Your task to perform on an android device: toggle location history Image 0: 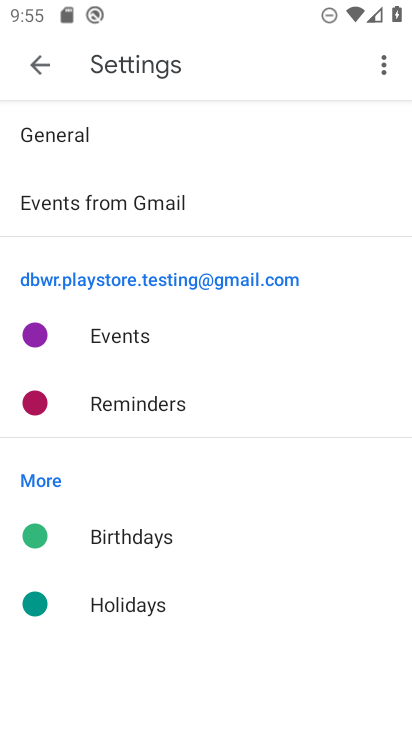
Step 0: press home button
Your task to perform on an android device: toggle location history Image 1: 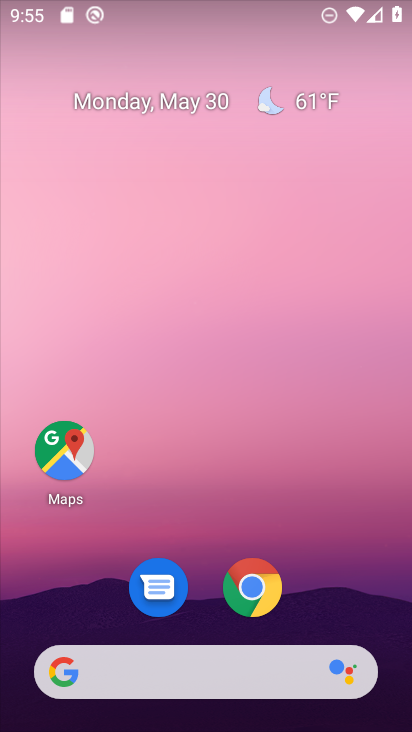
Step 1: drag from (204, 637) to (128, 54)
Your task to perform on an android device: toggle location history Image 2: 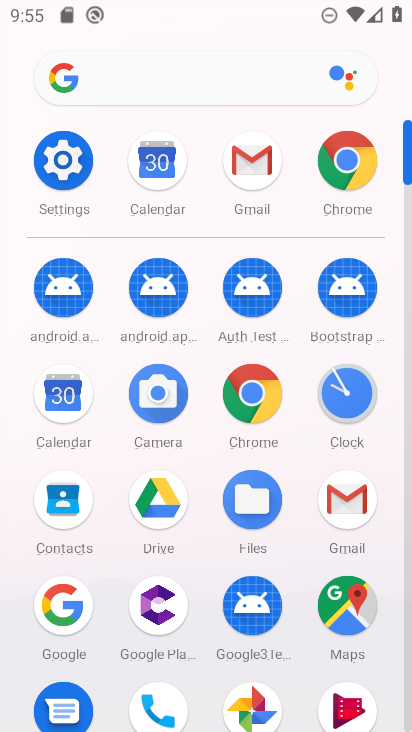
Step 2: click (331, 616)
Your task to perform on an android device: toggle location history Image 3: 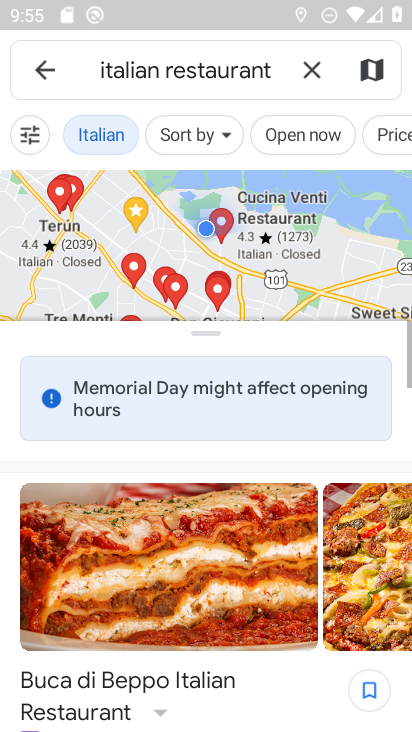
Step 3: press home button
Your task to perform on an android device: toggle location history Image 4: 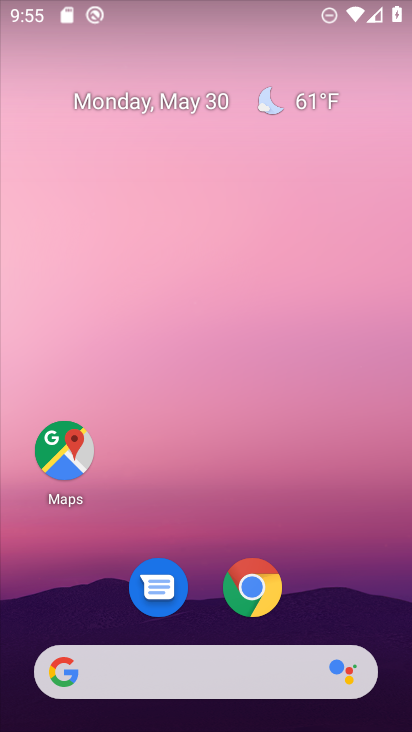
Step 4: drag from (202, 655) to (98, 49)
Your task to perform on an android device: toggle location history Image 5: 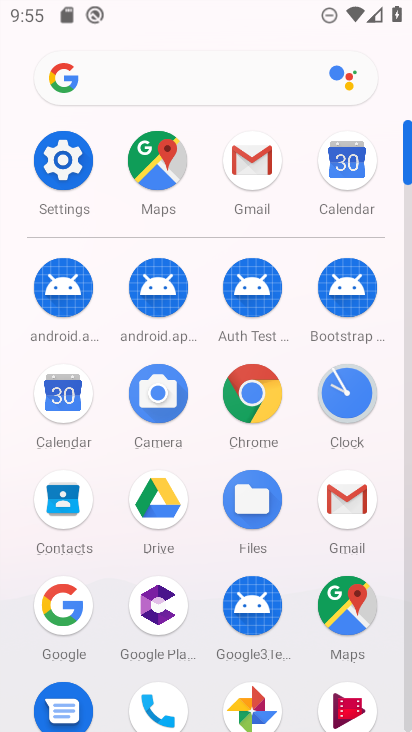
Step 5: click (67, 167)
Your task to perform on an android device: toggle location history Image 6: 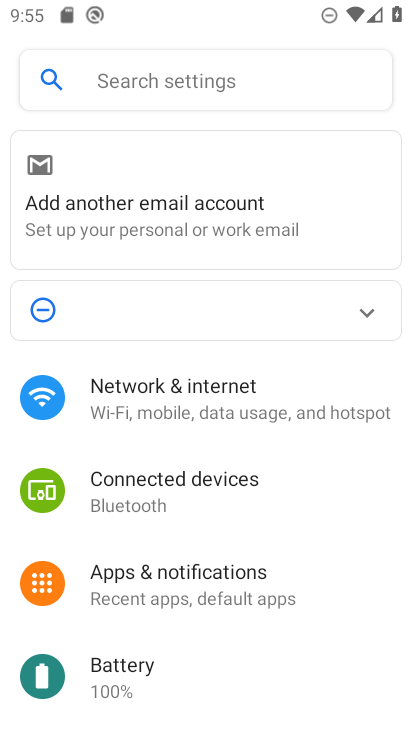
Step 6: drag from (299, 642) to (243, 215)
Your task to perform on an android device: toggle location history Image 7: 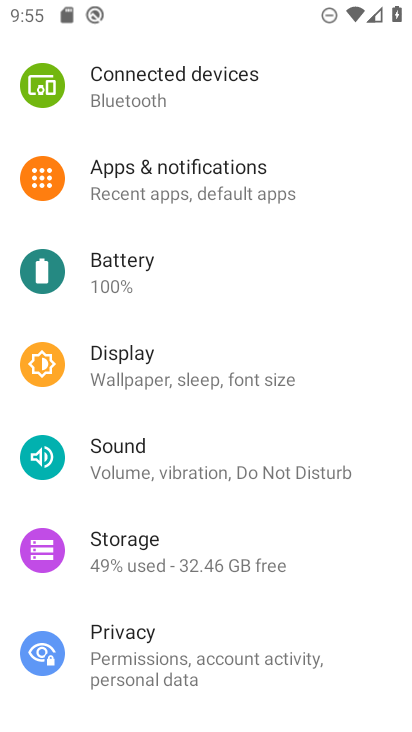
Step 7: drag from (182, 663) to (152, 303)
Your task to perform on an android device: toggle location history Image 8: 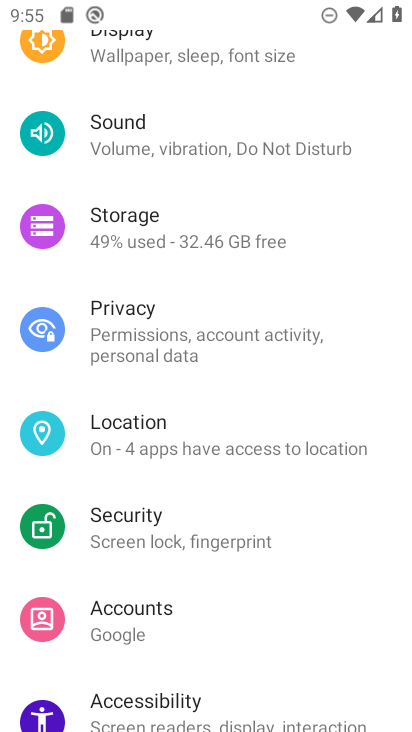
Step 8: click (137, 454)
Your task to perform on an android device: toggle location history Image 9: 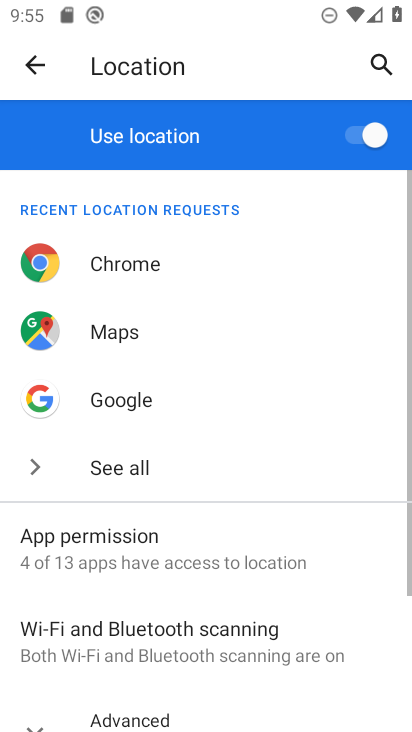
Step 9: click (164, 710)
Your task to perform on an android device: toggle location history Image 10: 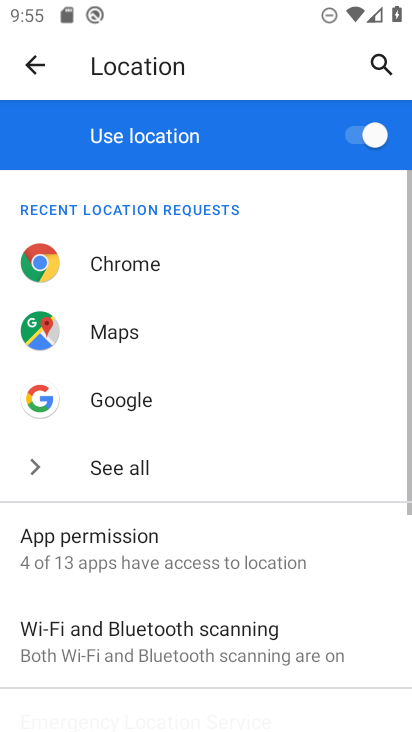
Step 10: drag from (164, 710) to (83, 234)
Your task to perform on an android device: toggle location history Image 11: 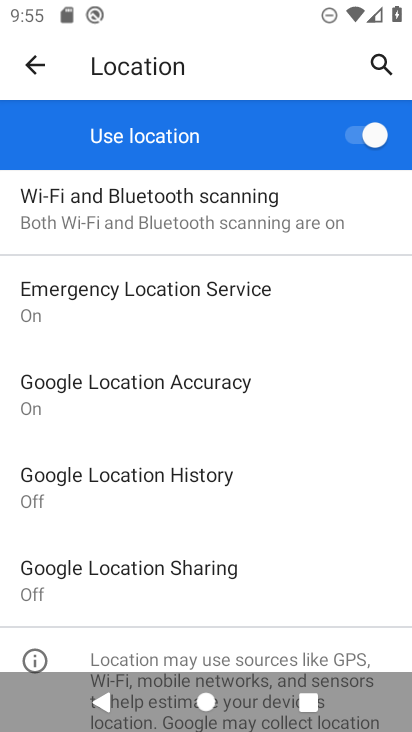
Step 11: click (134, 462)
Your task to perform on an android device: toggle location history Image 12: 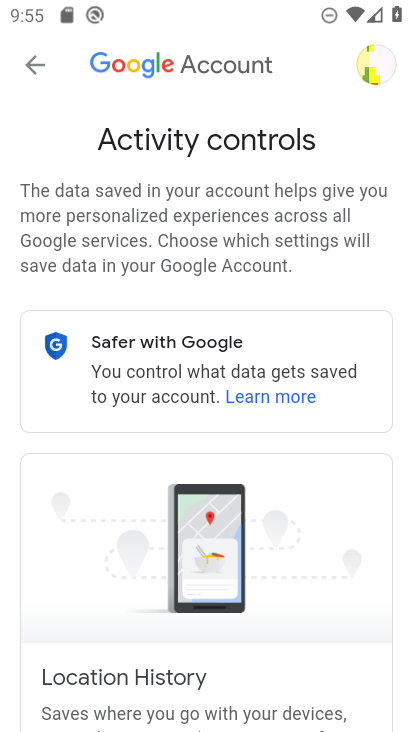
Step 12: drag from (262, 569) to (172, 137)
Your task to perform on an android device: toggle location history Image 13: 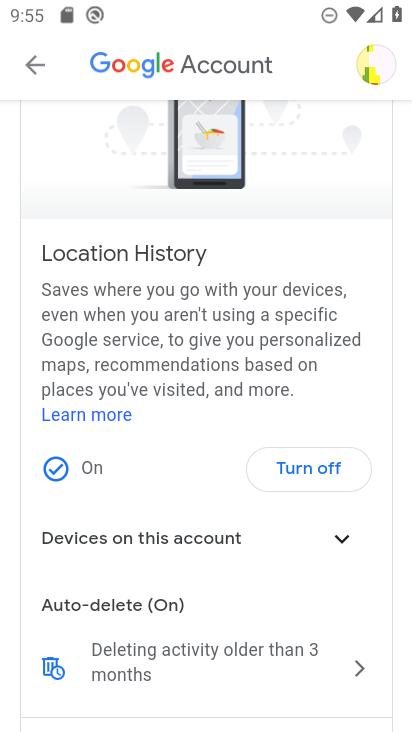
Step 13: click (296, 460)
Your task to perform on an android device: toggle location history Image 14: 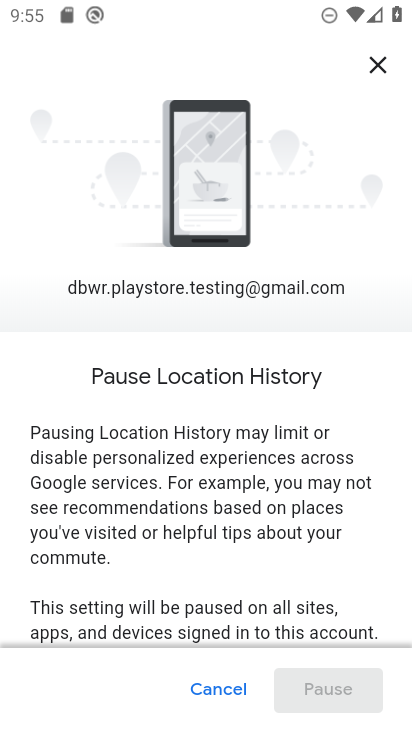
Step 14: drag from (285, 610) to (225, 94)
Your task to perform on an android device: toggle location history Image 15: 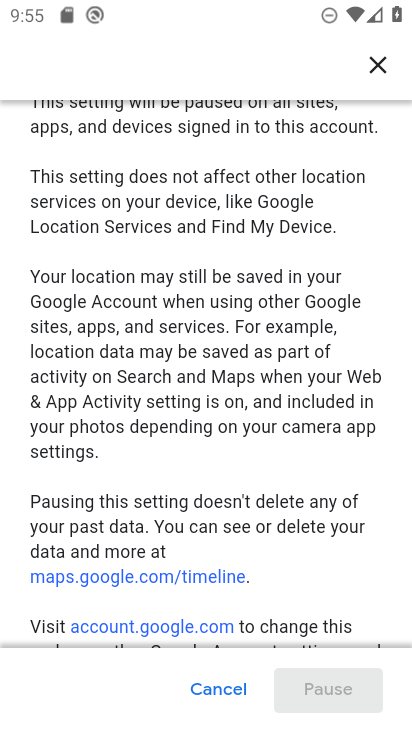
Step 15: drag from (274, 618) to (226, 62)
Your task to perform on an android device: toggle location history Image 16: 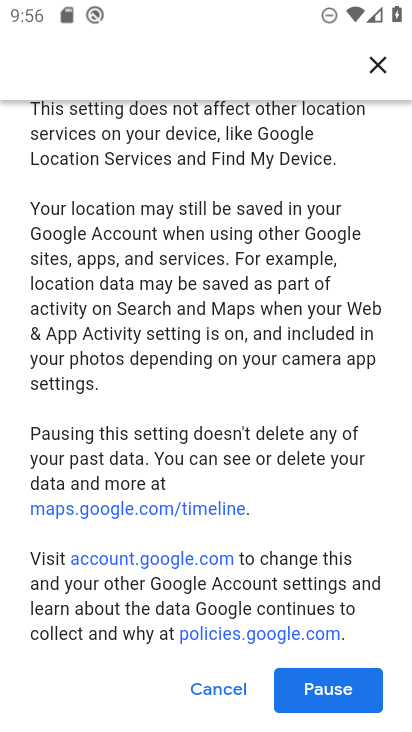
Step 16: click (324, 712)
Your task to perform on an android device: toggle location history Image 17: 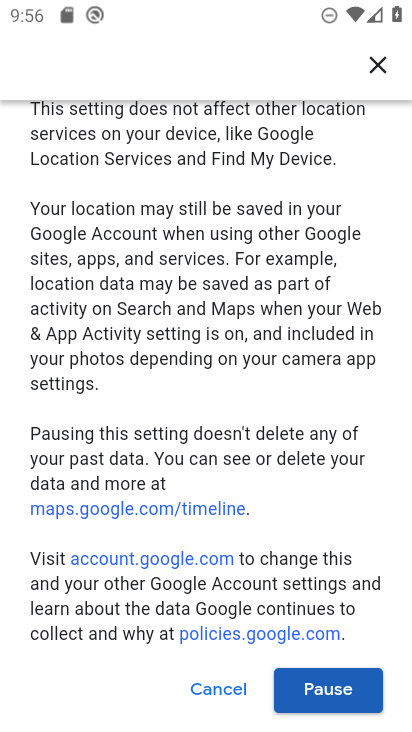
Step 17: click (325, 688)
Your task to perform on an android device: toggle location history Image 18: 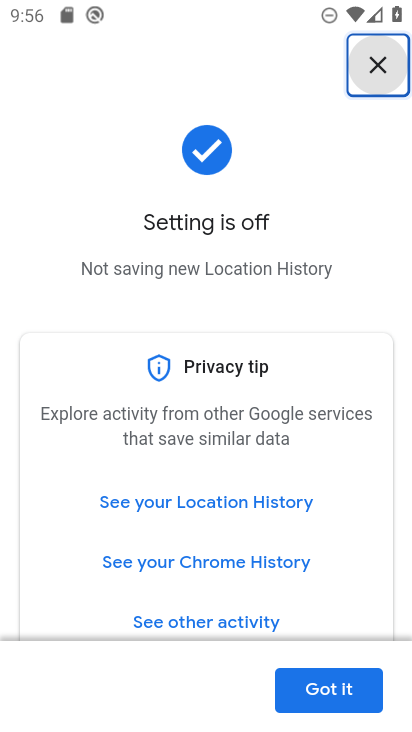
Step 18: click (318, 687)
Your task to perform on an android device: toggle location history Image 19: 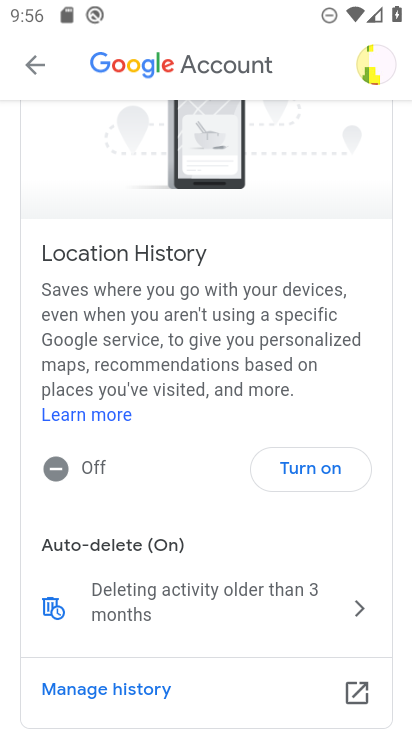
Step 19: task complete